Your task to perform on an android device: Add macbook air to the cart on costco, then select checkout. Image 0: 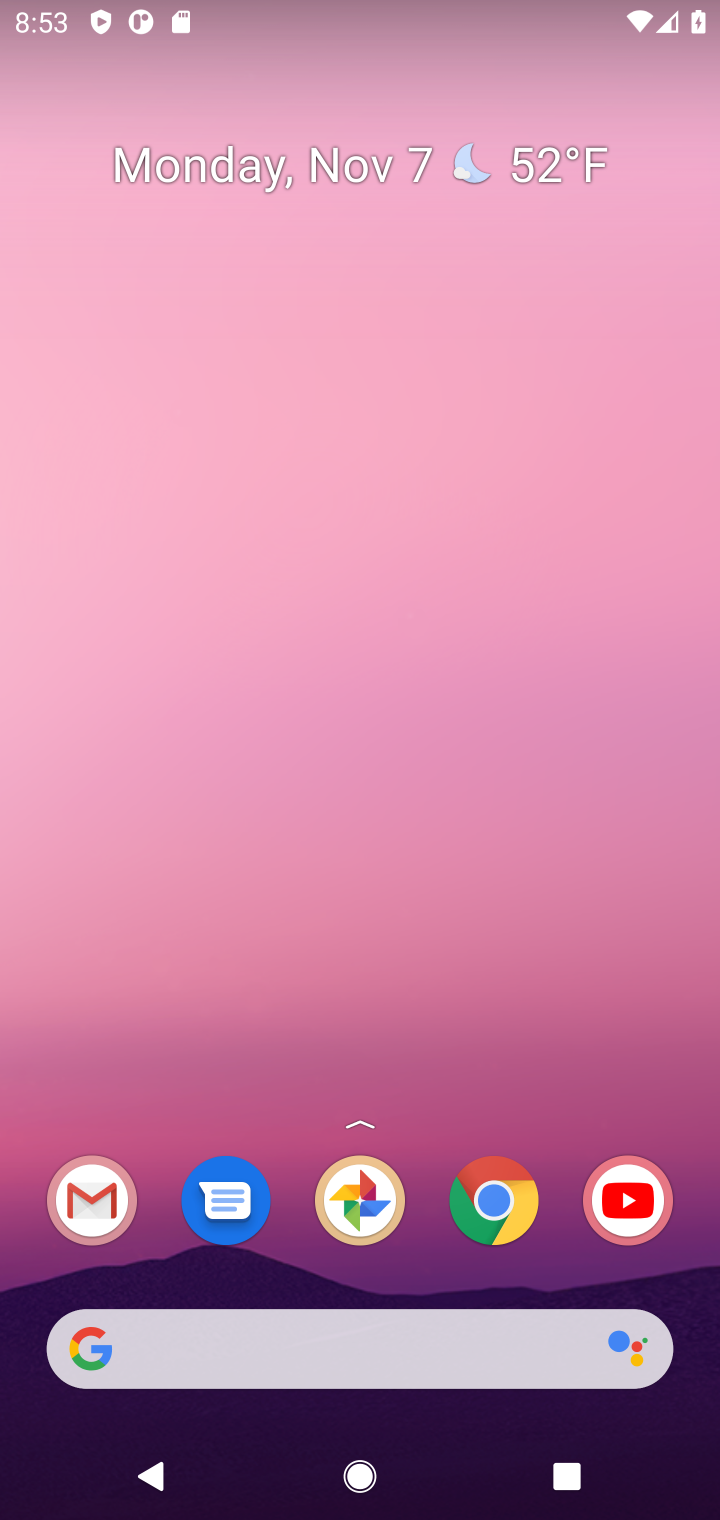
Step 0: click (495, 1194)
Your task to perform on an android device: Add macbook air to the cart on costco, then select checkout. Image 1: 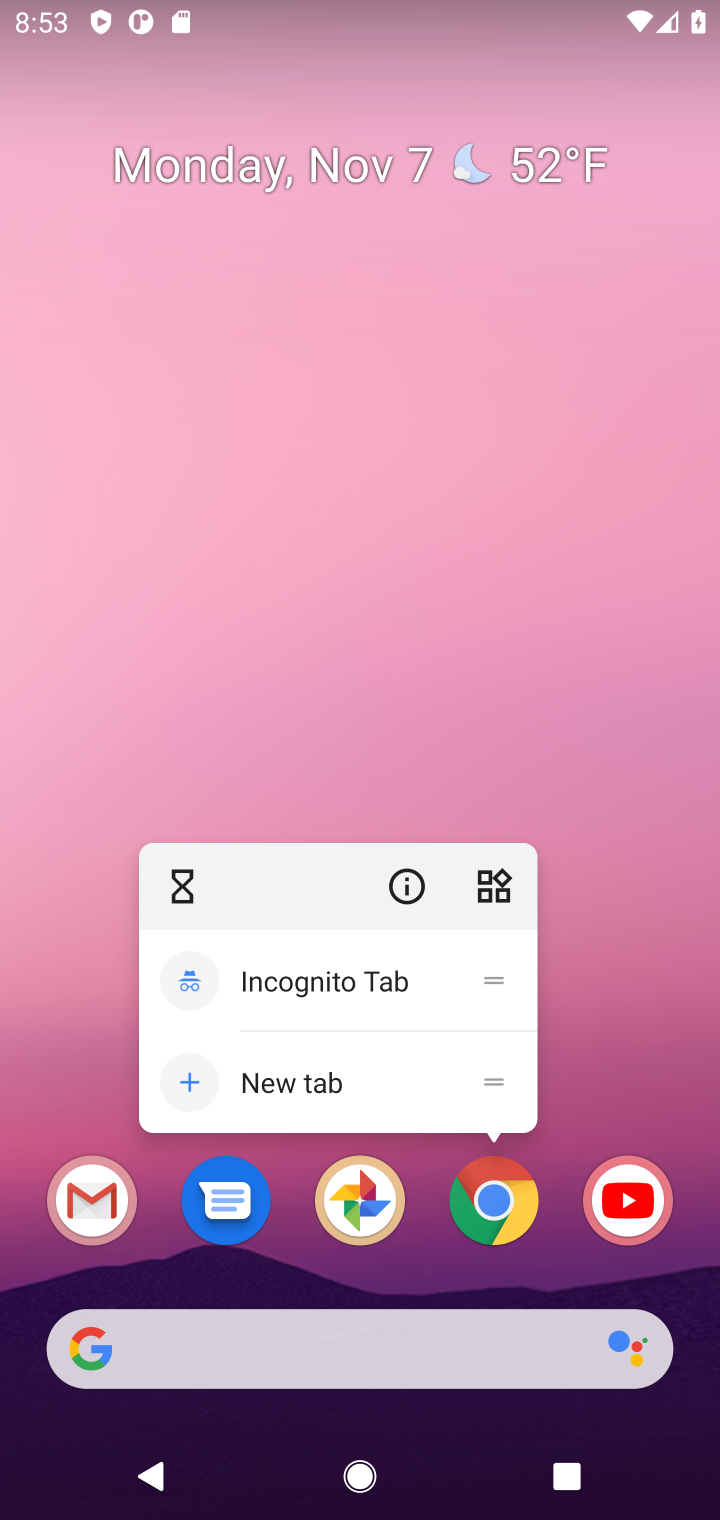
Step 1: click (479, 1190)
Your task to perform on an android device: Add macbook air to the cart on costco, then select checkout. Image 2: 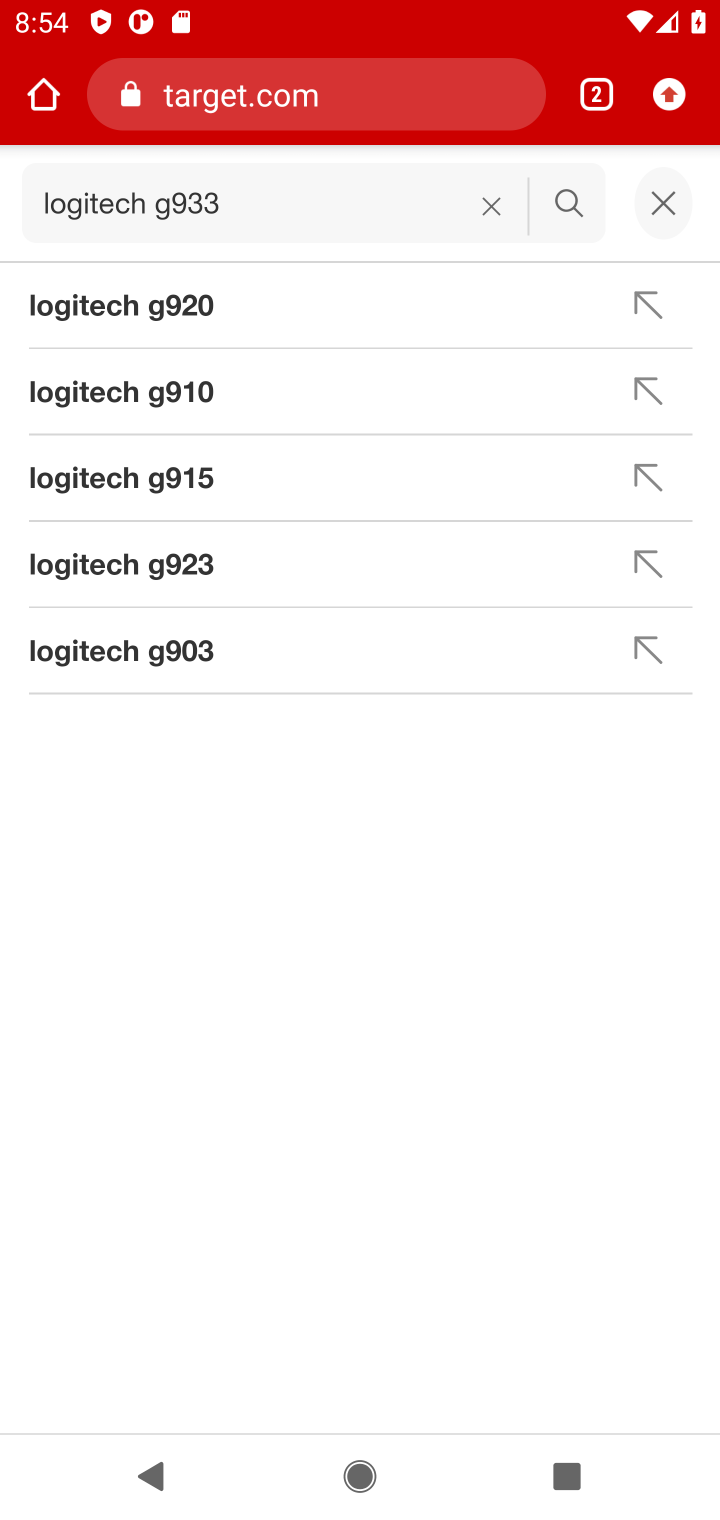
Step 2: click (387, 96)
Your task to perform on an android device: Add macbook air to the cart on costco, then select checkout. Image 3: 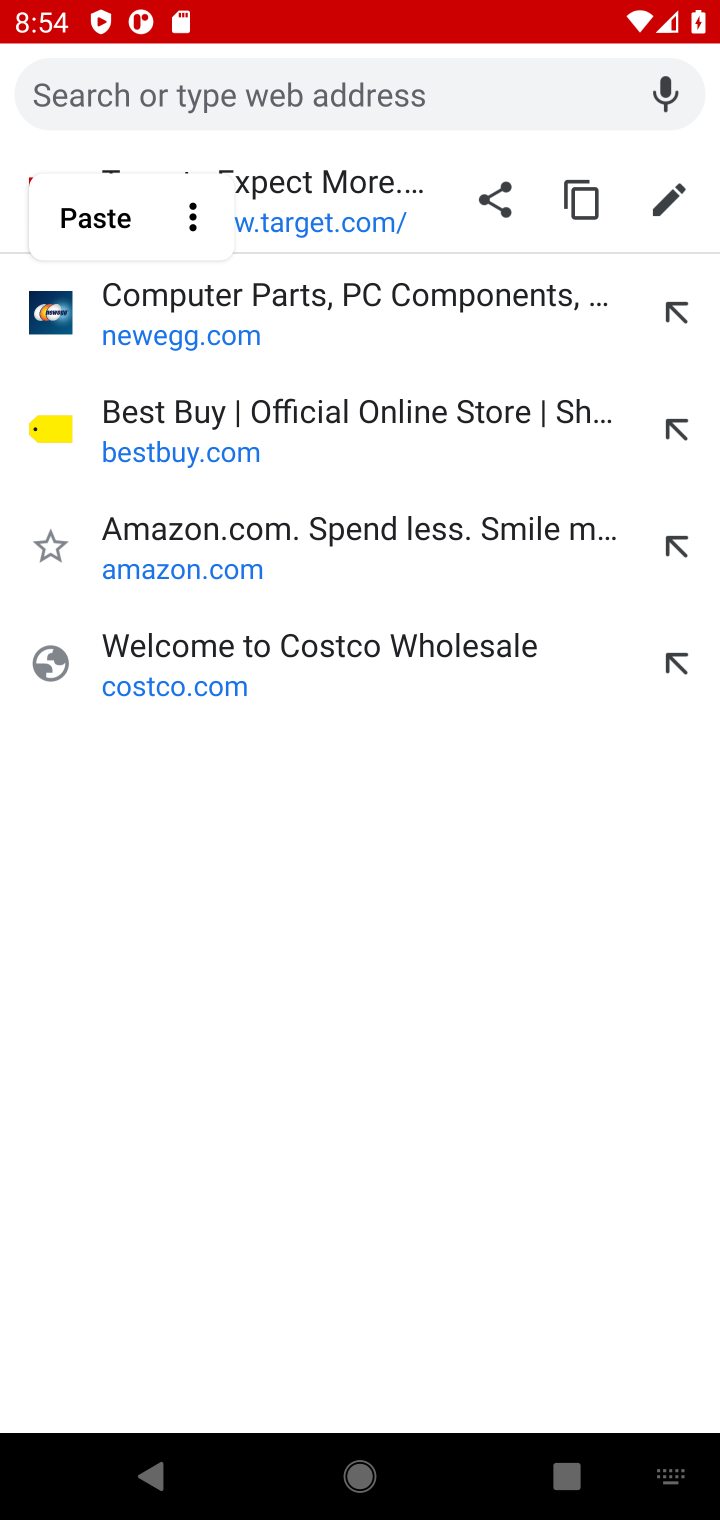
Step 3: type "costco"
Your task to perform on an android device: Add macbook air to the cart on costco, then select checkout. Image 4: 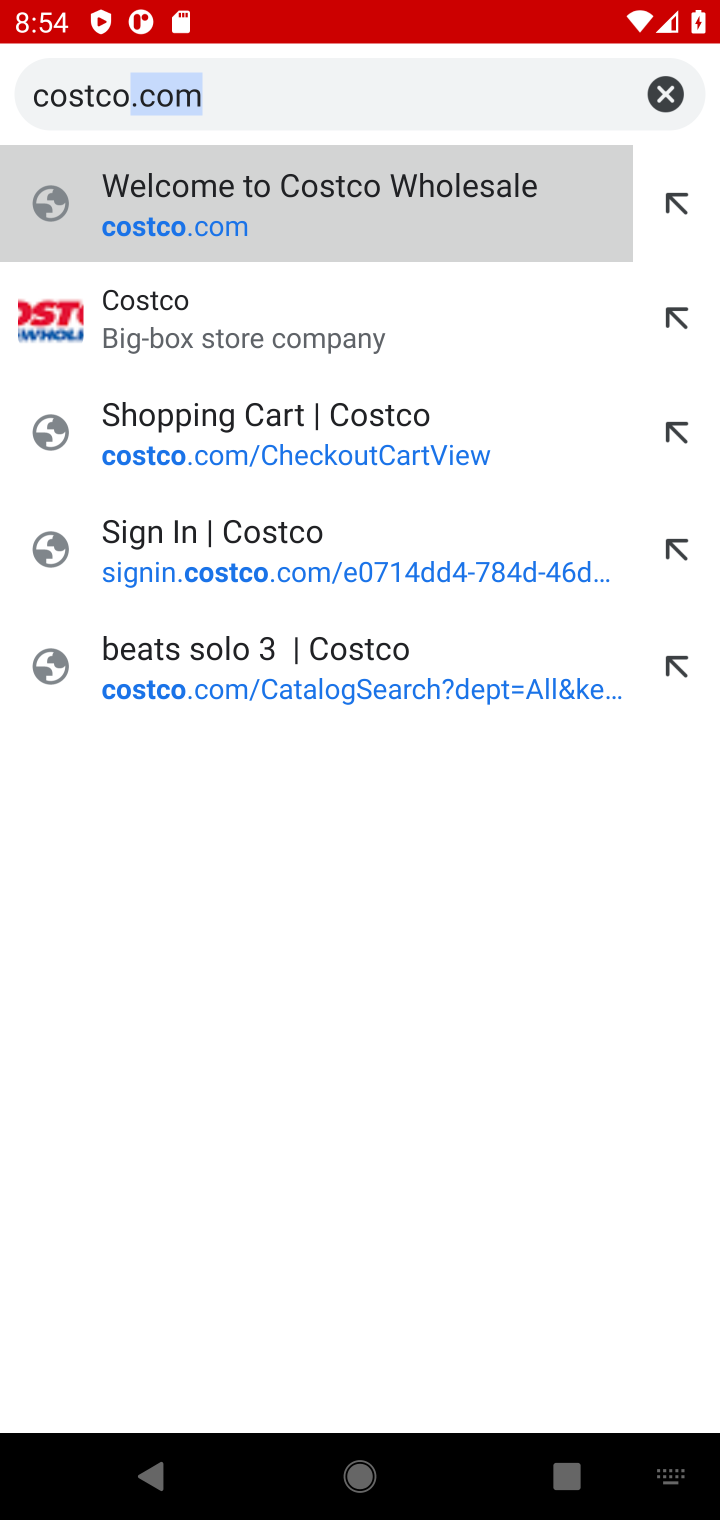
Step 4: click (318, 111)
Your task to perform on an android device: Add macbook air to the cart on costco, then select checkout. Image 5: 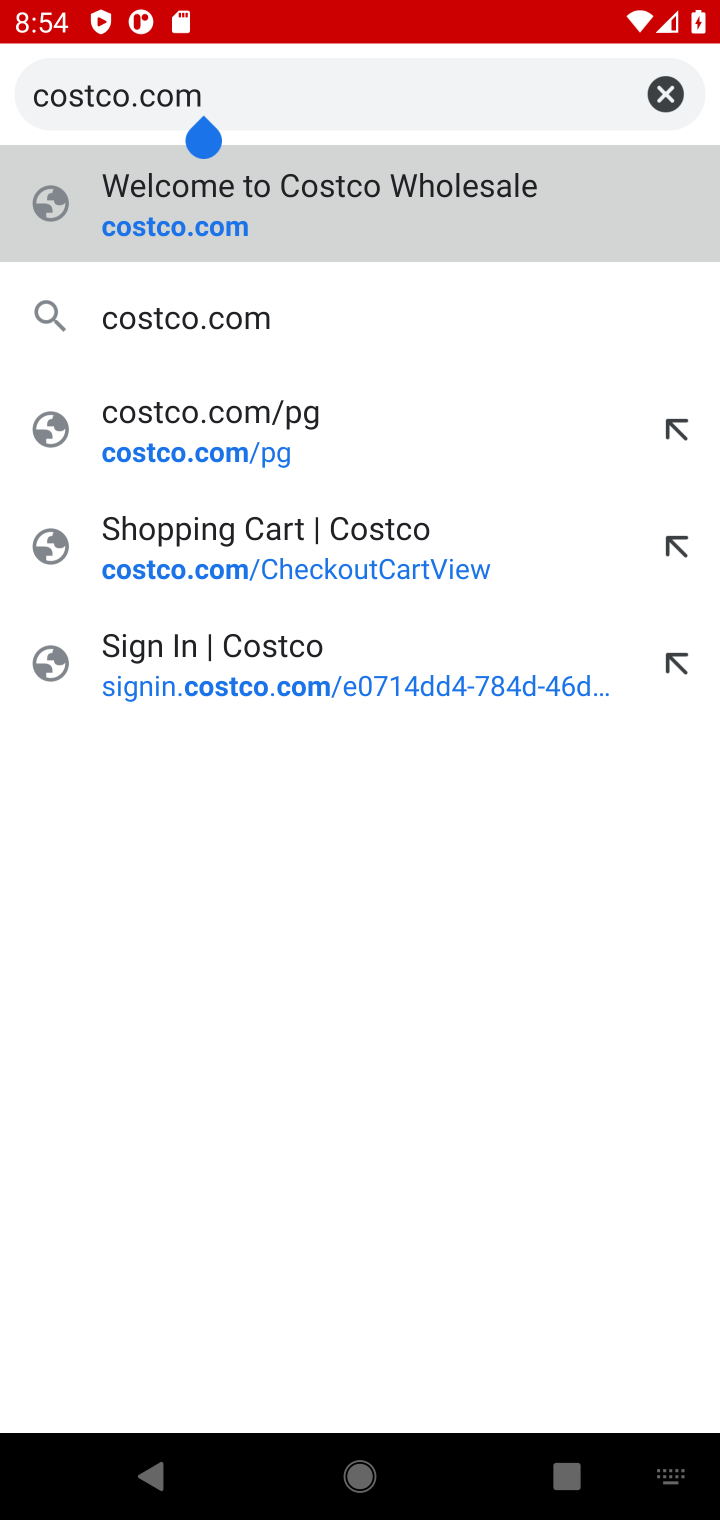
Step 5: click (226, 315)
Your task to perform on an android device: Add macbook air to the cart on costco, then select checkout. Image 6: 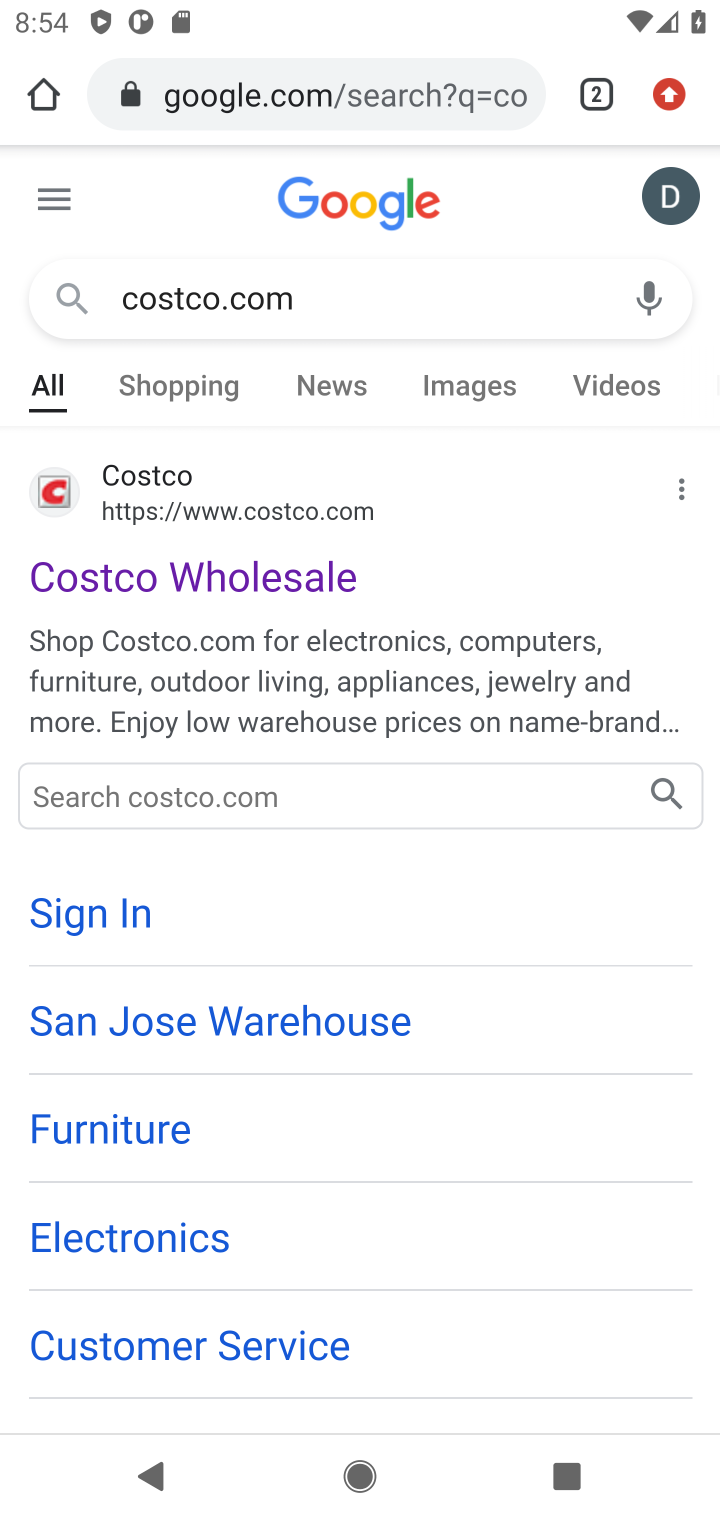
Step 6: click (309, 500)
Your task to perform on an android device: Add macbook air to the cart on costco, then select checkout. Image 7: 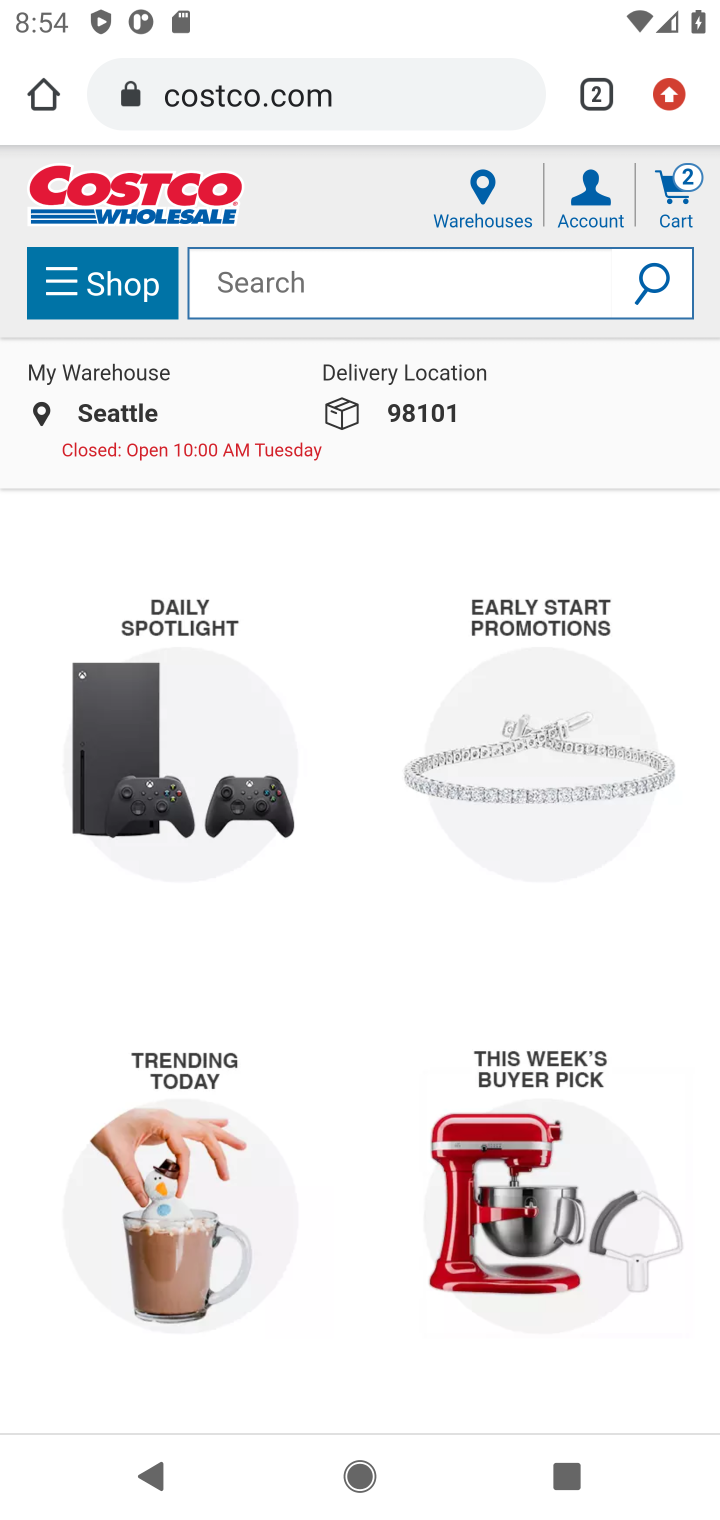
Step 7: click (387, 291)
Your task to perform on an android device: Add macbook air to the cart on costco, then select checkout. Image 8: 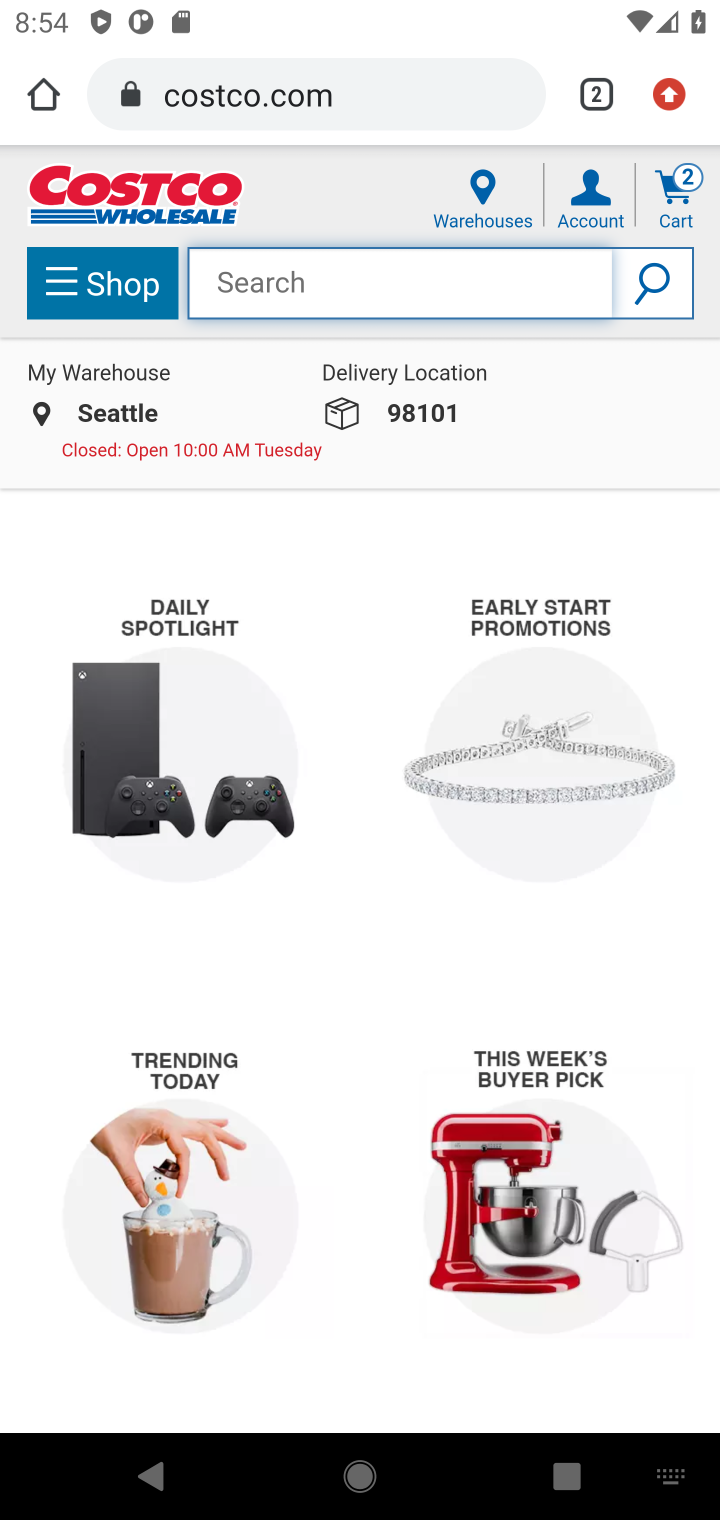
Step 8: type "macbook air"
Your task to perform on an android device: Add macbook air to the cart on costco, then select checkout. Image 9: 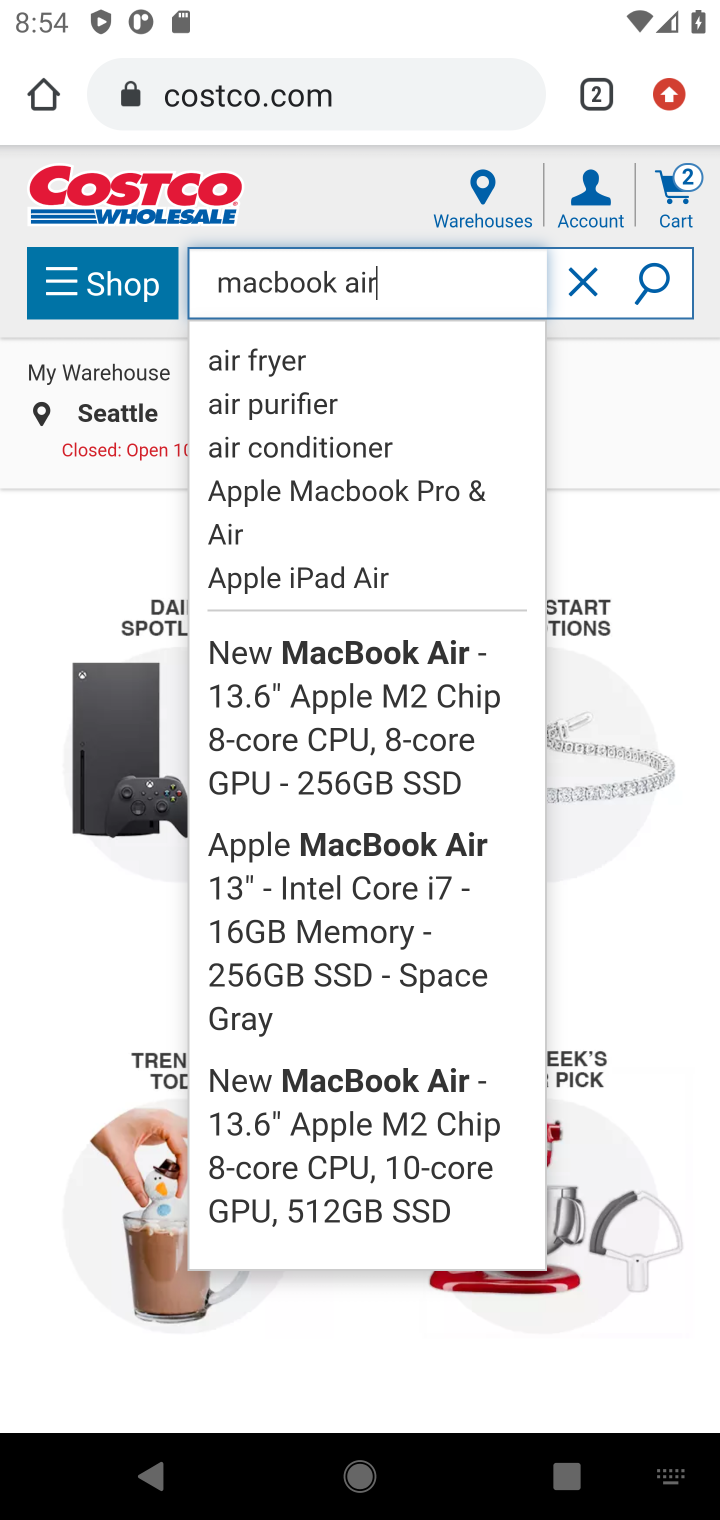
Step 9: click (671, 406)
Your task to perform on an android device: Add macbook air to the cart on costco, then select checkout. Image 10: 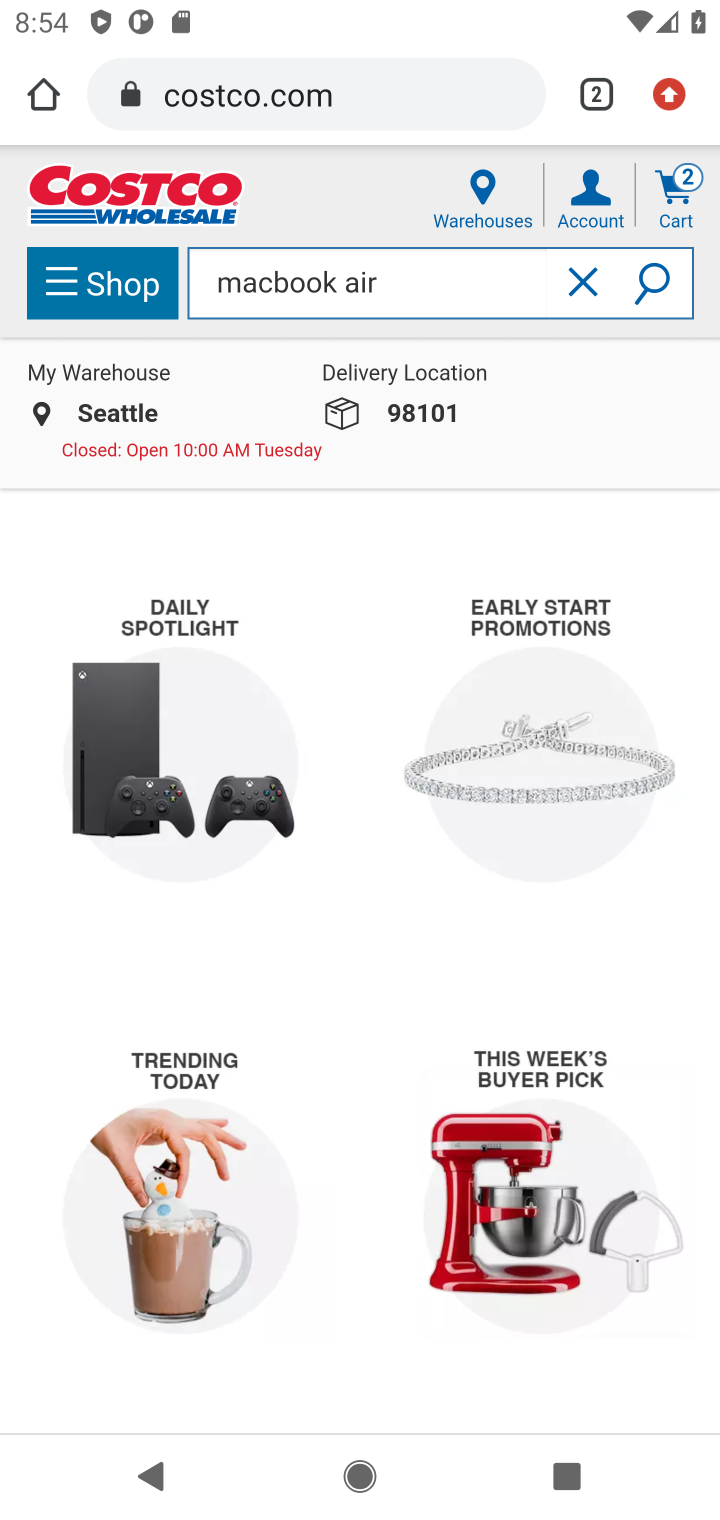
Step 10: task complete